Your task to perform on an android device: show emergency info Image 0: 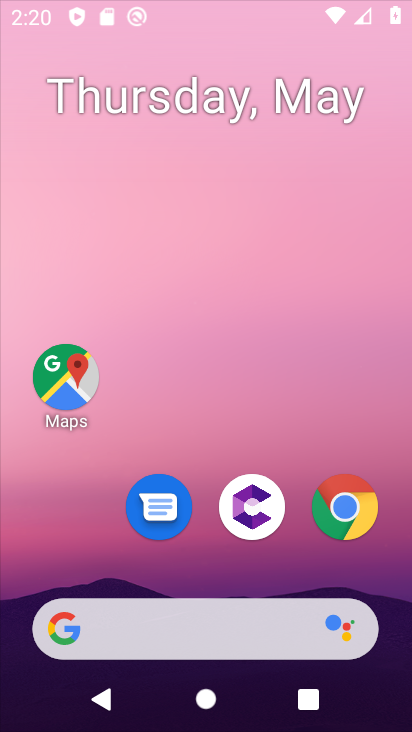
Step 0: press home button
Your task to perform on an android device: show emergency info Image 1: 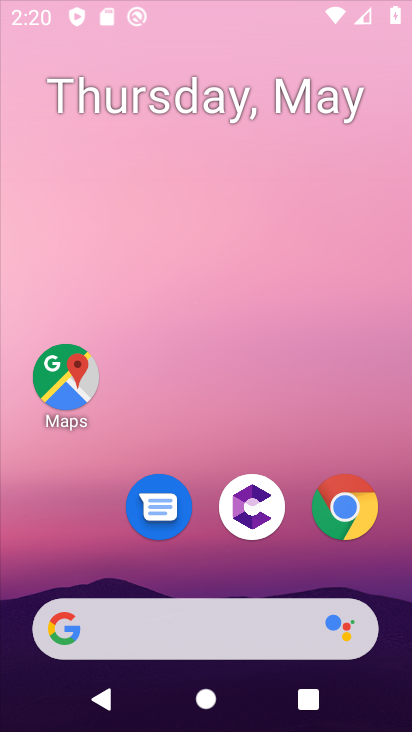
Step 1: click (261, 150)
Your task to perform on an android device: show emergency info Image 2: 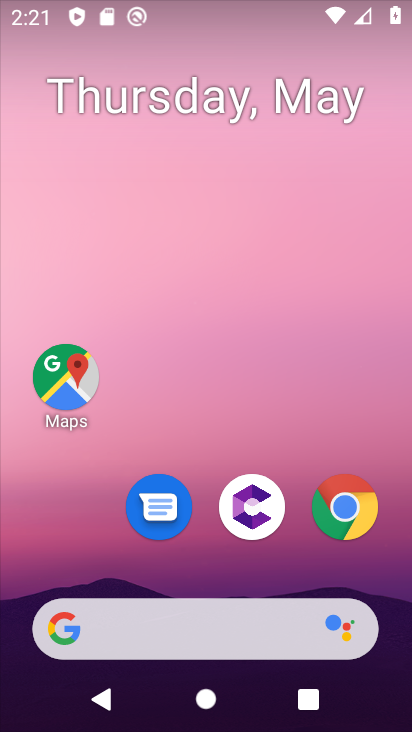
Step 2: drag from (97, 562) to (103, 214)
Your task to perform on an android device: show emergency info Image 3: 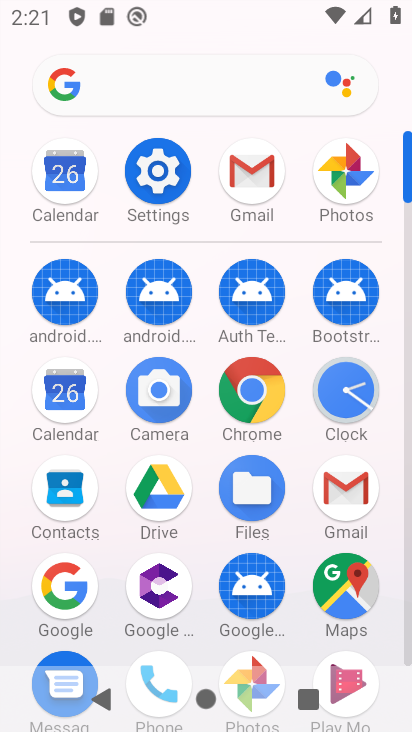
Step 3: click (147, 174)
Your task to perform on an android device: show emergency info Image 4: 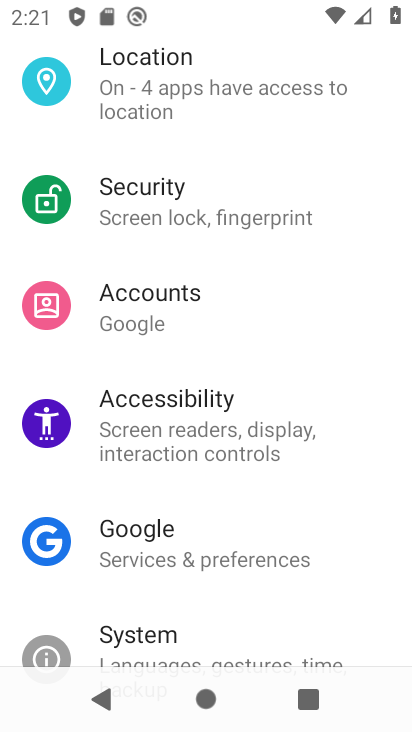
Step 4: drag from (253, 573) to (231, 267)
Your task to perform on an android device: show emergency info Image 5: 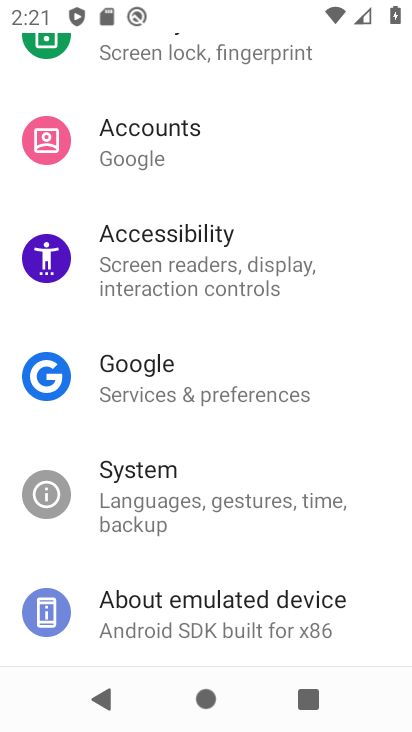
Step 5: drag from (152, 574) to (175, 205)
Your task to perform on an android device: show emergency info Image 6: 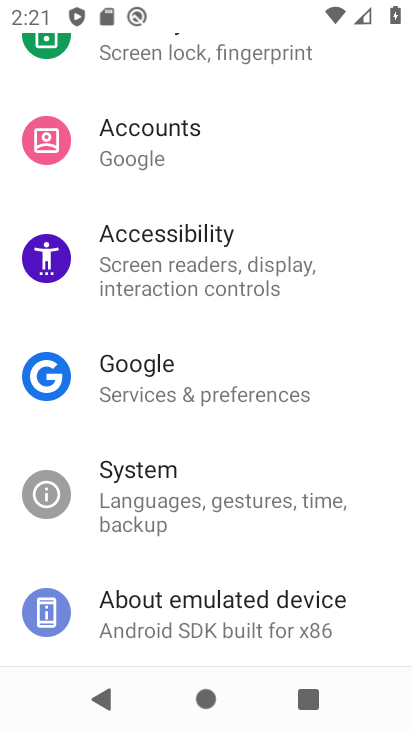
Step 6: click (114, 616)
Your task to perform on an android device: show emergency info Image 7: 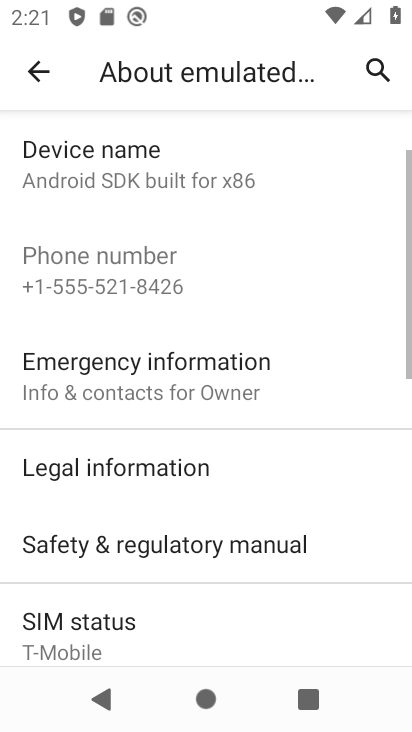
Step 7: click (126, 361)
Your task to perform on an android device: show emergency info Image 8: 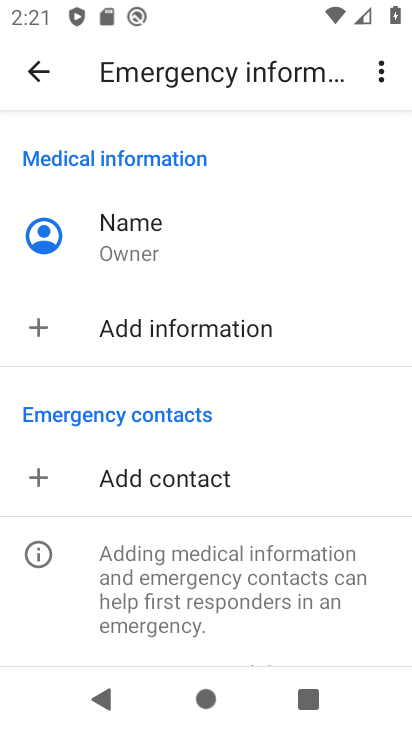
Step 8: task complete